Your task to perform on an android device: Search for seafood restaurants on Google Maps Image 0: 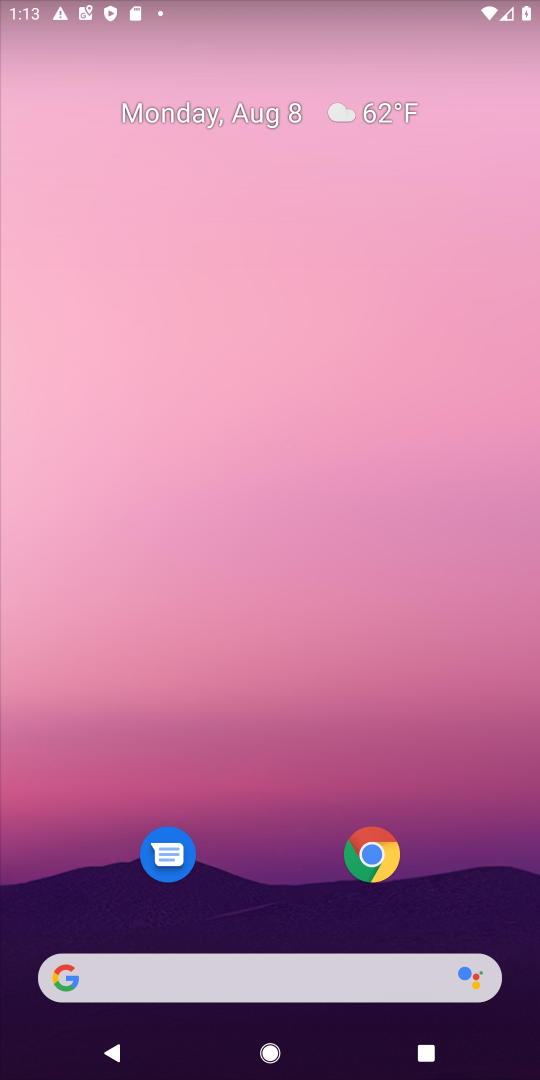
Step 0: drag from (281, 885) to (268, 218)
Your task to perform on an android device: Search for seafood restaurants on Google Maps Image 1: 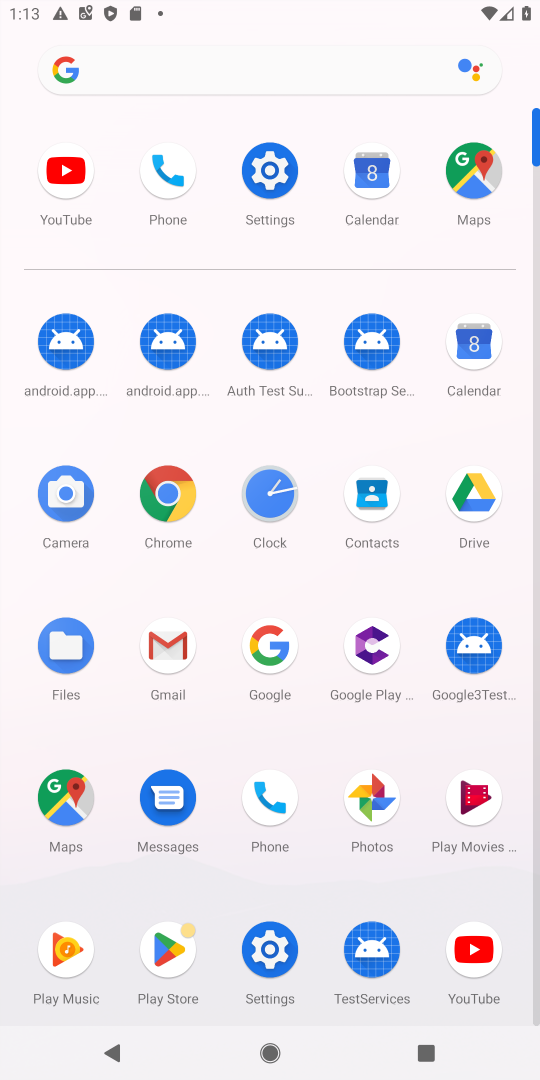
Step 1: click (63, 805)
Your task to perform on an android device: Search for seafood restaurants on Google Maps Image 2: 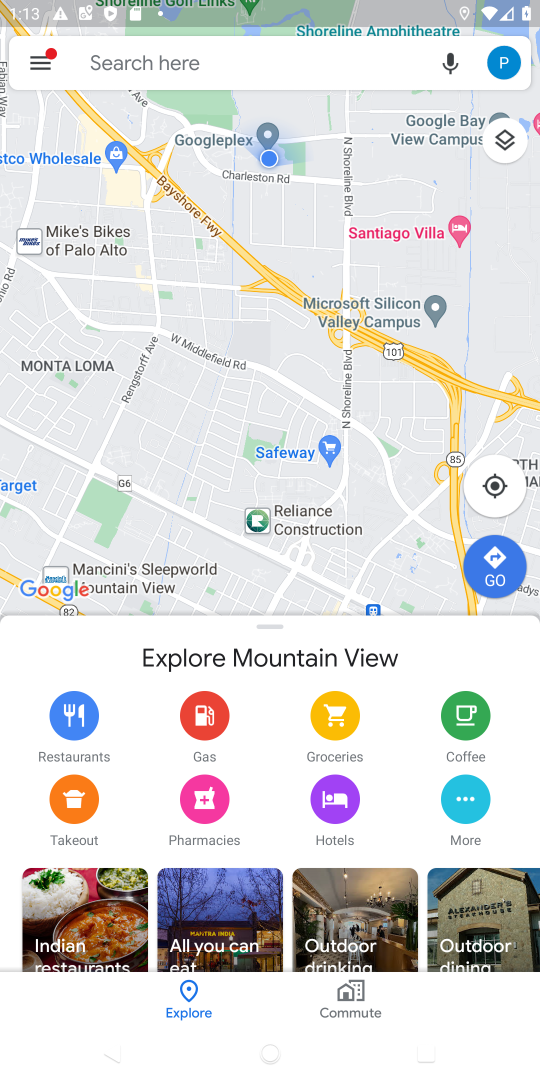
Step 2: click (221, 60)
Your task to perform on an android device: Search for seafood restaurants on Google Maps Image 3: 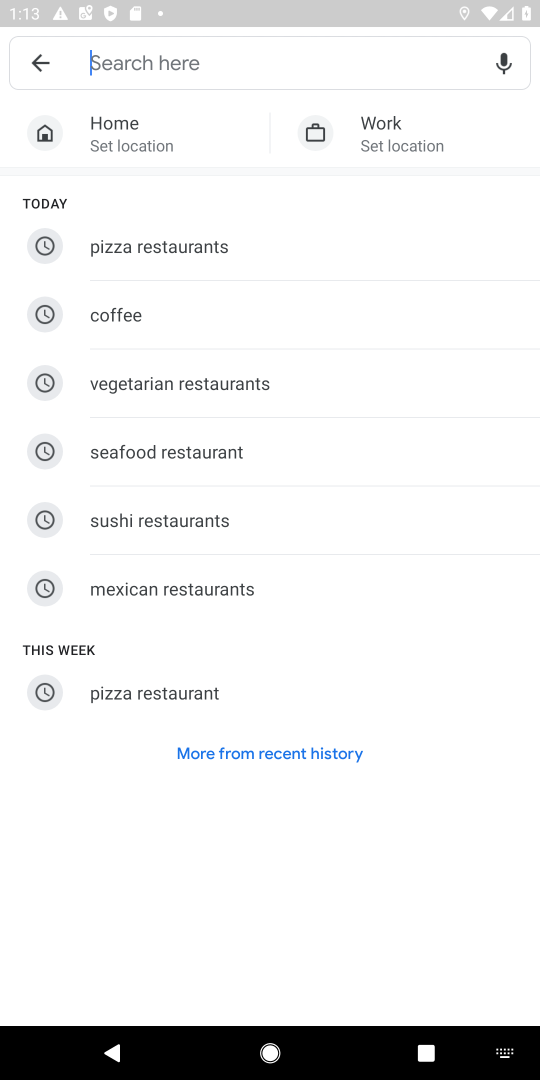
Step 3: click (171, 449)
Your task to perform on an android device: Search for seafood restaurants on Google Maps Image 4: 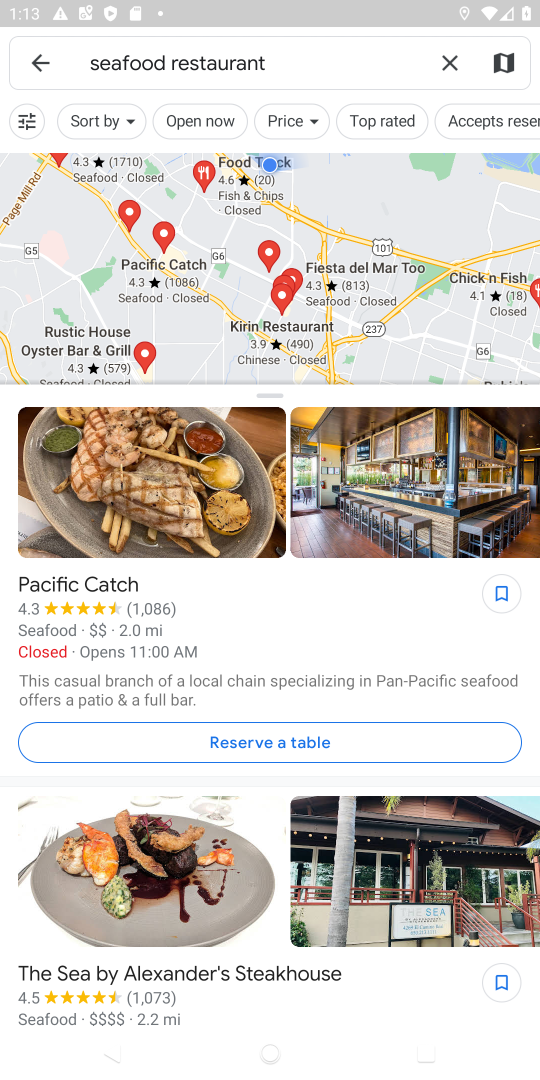
Step 4: task complete